Your task to perform on an android device: delete the emails in spam in the gmail app Image 0: 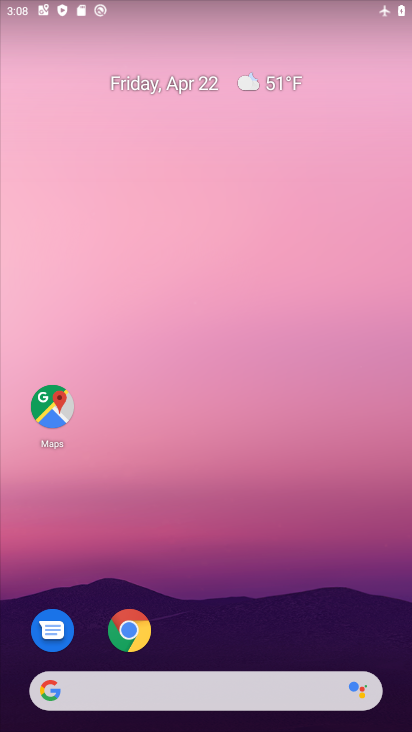
Step 0: drag from (220, 556) to (149, 32)
Your task to perform on an android device: delete the emails in spam in the gmail app Image 1: 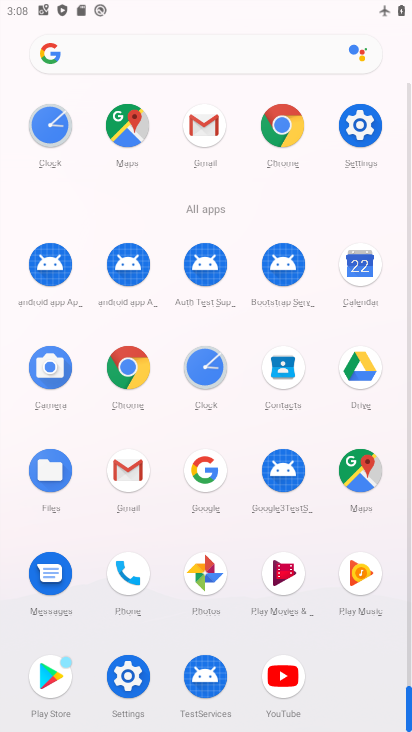
Step 1: drag from (4, 560) to (6, 184)
Your task to perform on an android device: delete the emails in spam in the gmail app Image 2: 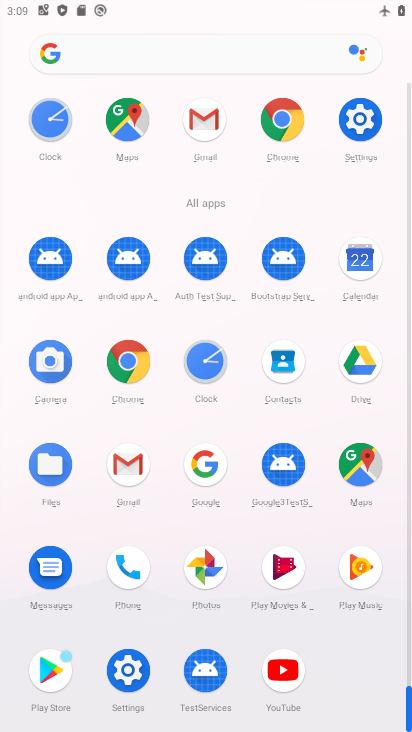
Step 2: click (206, 118)
Your task to perform on an android device: delete the emails in spam in the gmail app Image 3: 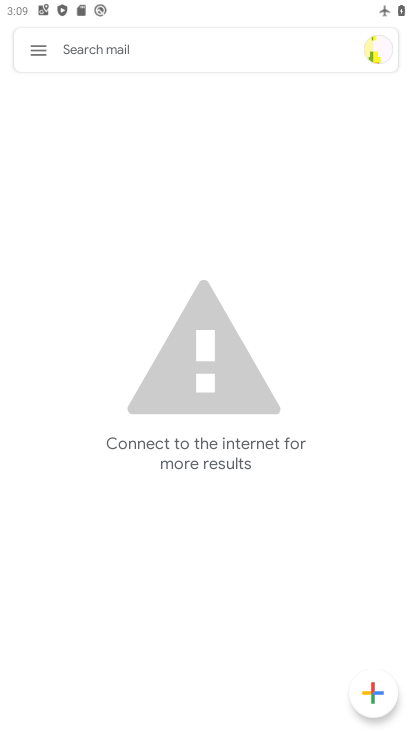
Step 3: click (38, 47)
Your task to perform on an android device: delete the emails in spam in the gmail app Image 4: 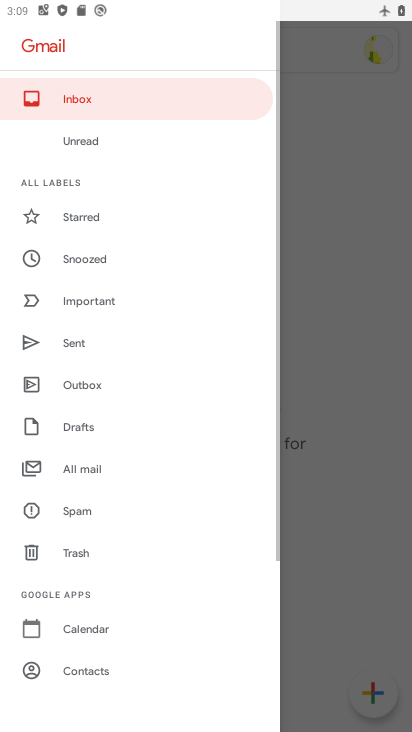
Step 4: drag from (131, 564) to (131, 272)
Your task to perform on an android device: delete the emails in spam in the gmail app Image 5: 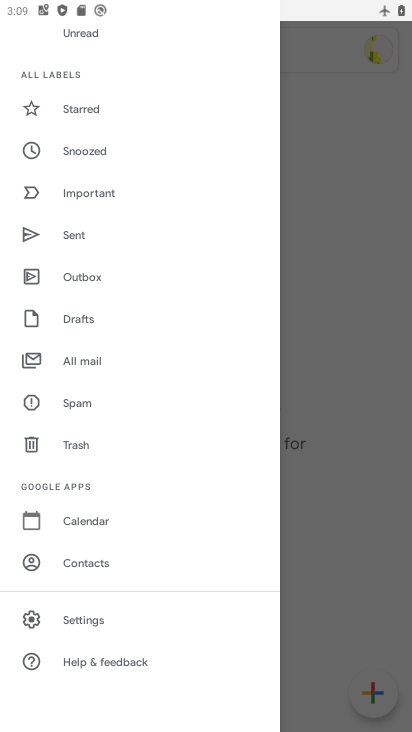
Step 5: click (84, 395)
Your task to perform on an android device: delete the emails in spam in the gmail app Image 6: 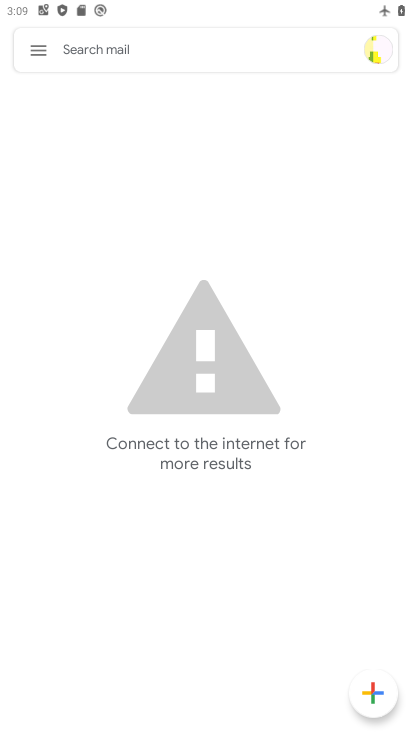
Step 6: click (40, 39)
Your task to perform on an android device: delete the emails in spam in the gmail app Image 7: 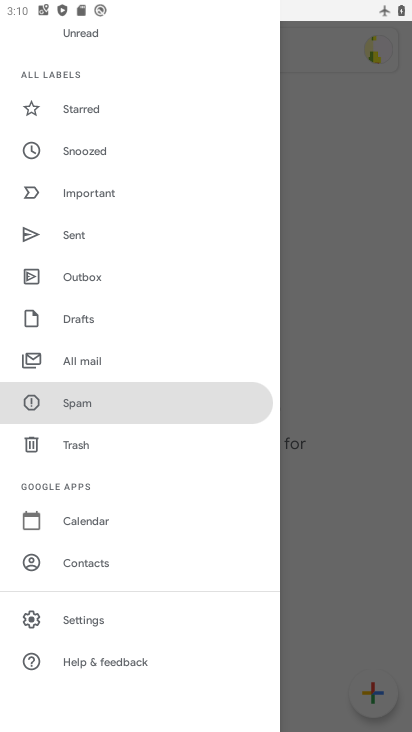
Step 7: click (127, 404)
Your task to perform on an android device: delete the emails in spam in the gmail app Image 8: 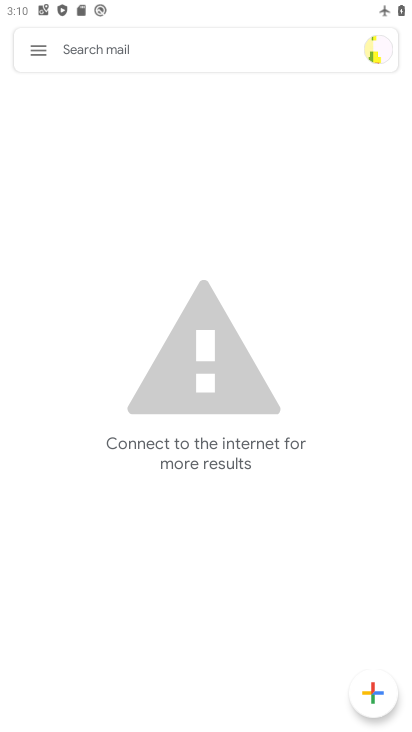
Step 8: task complete